Your task to perform on an android device: uninstall "Cash App" Image 0: 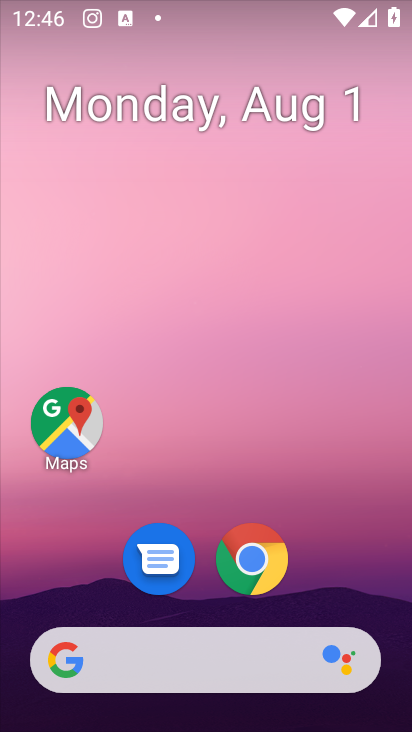
Step 0: drag from (78, 548) to (227, 0)
Your task to perform on an android device: uninstall "Cash App" Image 1: 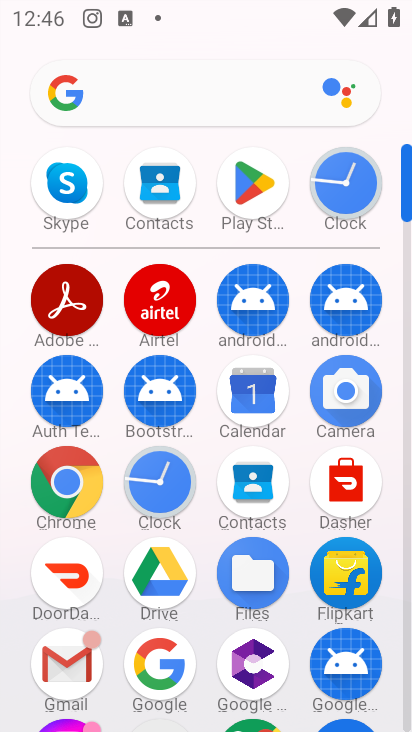
Step 1: click (255, 184)
Your task to perform on an android device: uninstall "Cash App" Image 2: 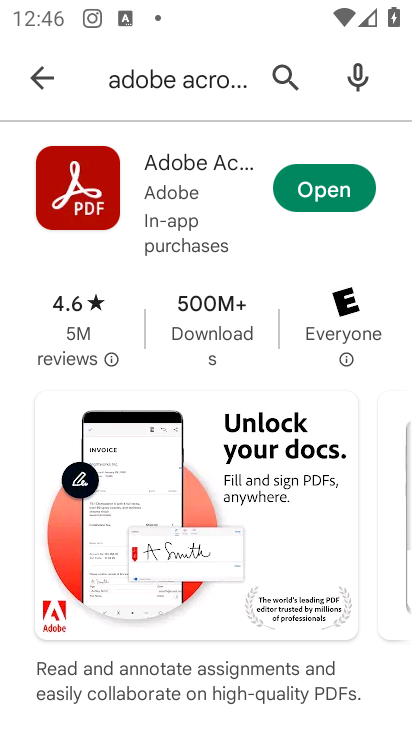
Step 2: click (279, 86)
Your task to perform on an android device: uninstall "Cash App" Image 3: 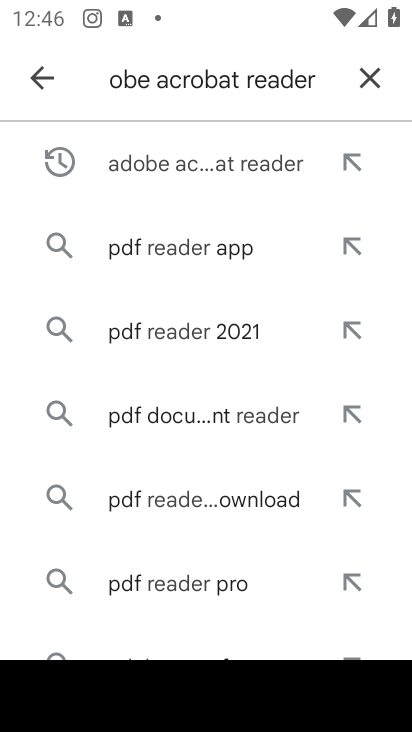
Step 3: click (365, 74)
Your task to perform on an android device: uninstall "Cash App" Image 4: 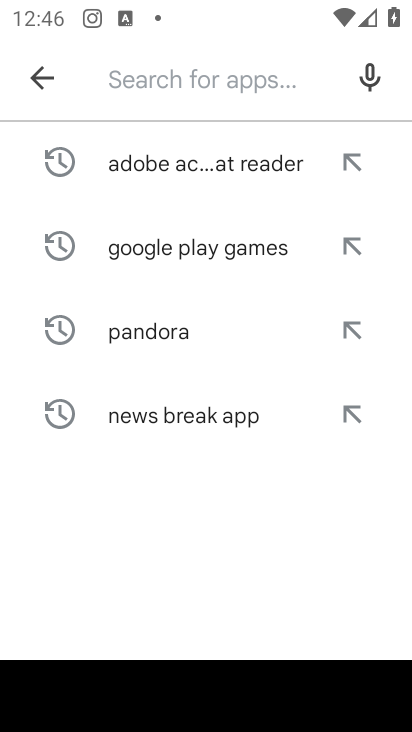
Step 4: click (194, 95)
Your task to perform on an android device: uninstall "Cash App" Image 5: 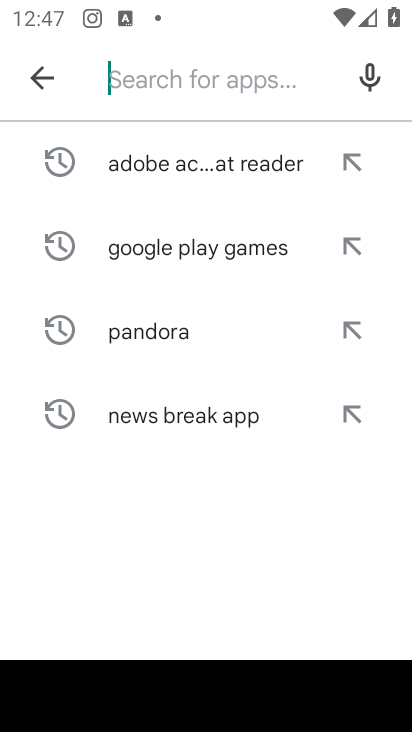
Step 5: click (219, 84)
Your task to perform on an android device: uninstall "Cash App" Image 6: 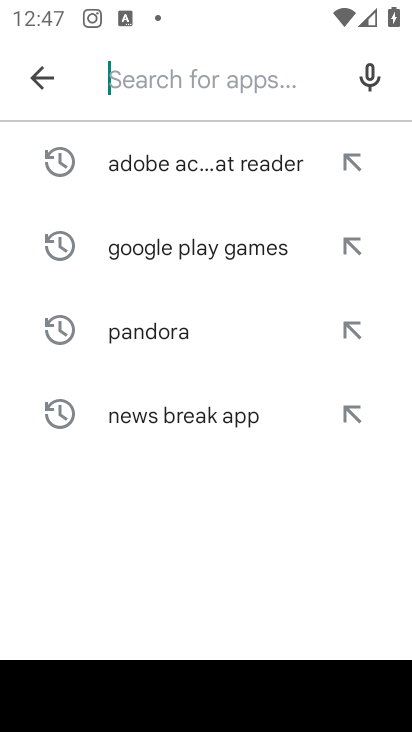
Step 6: type "cash app"
Your task to perform on an android device: uninstall "Cash App" Image 7: 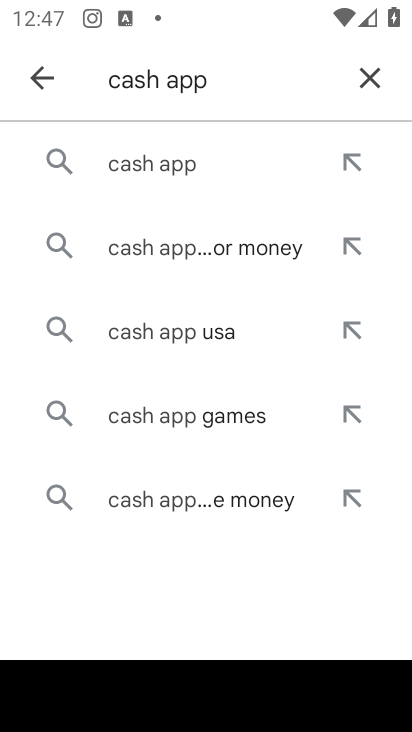
Step 7: click (171, 170)
Your task to perform on an android device: uninstall "Cash App" Image 8: 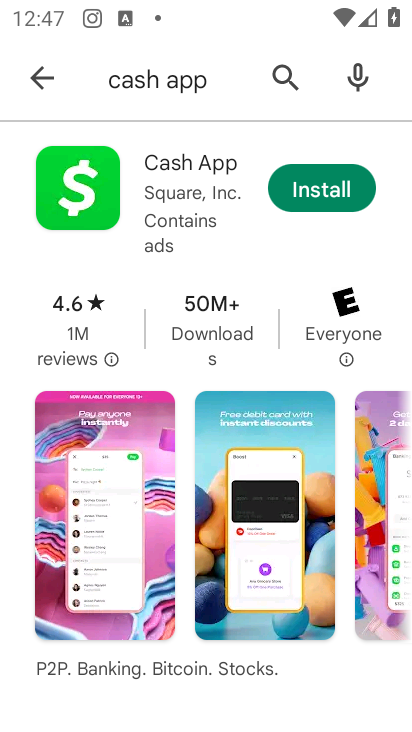
Step 8: task complete